Your task to perform on an android device: turn notification dots on Image 0: 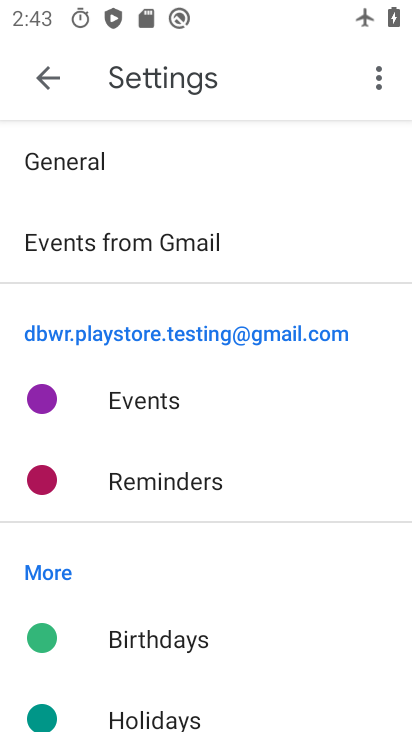
Step 0: press home button
Your task to perform on an android device: turn notification dots on Image 1: 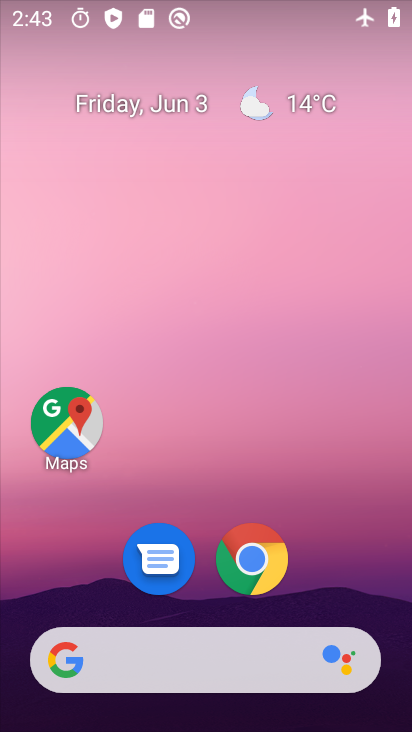
Step 1: drag from (225, 610) to (197, 71)
Your task to perform on an android device: turn notification dots on Image 2: 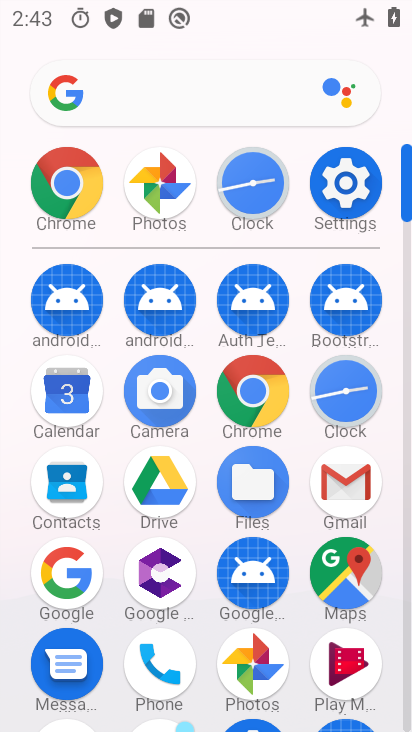
Step 2: click (70, 176)
Your task to perform on an android device: turn notification dots on Image 3: 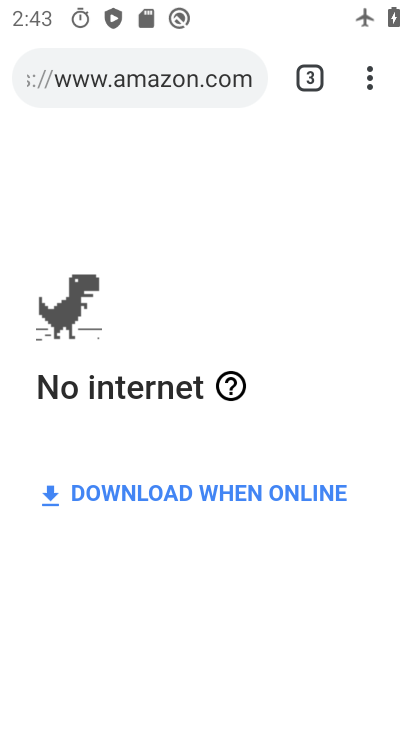
Step 3: press home button
Your task to perform on an android device: turn notification dots on Image 4: 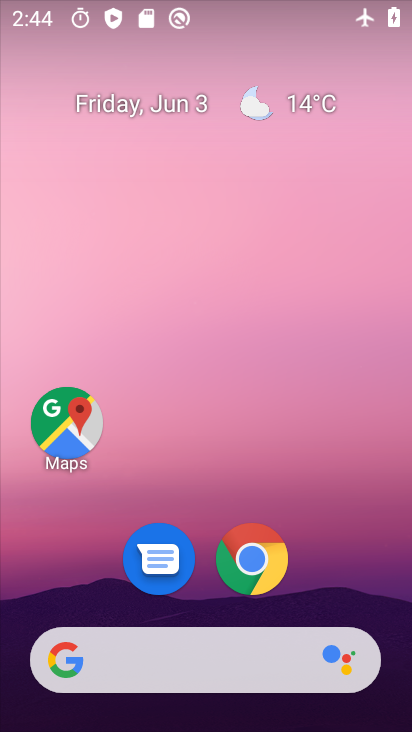
Step 4: drag from (213, 605) to (192, 0)
Your task to perform on an android device: turn notification dots on Image 5: 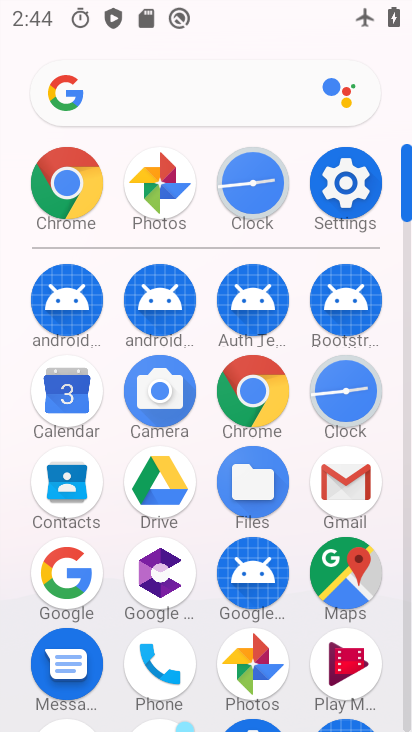
Step 5: click (336, 187)
Your task to perform on an android device: turn notification dots on Image 6: 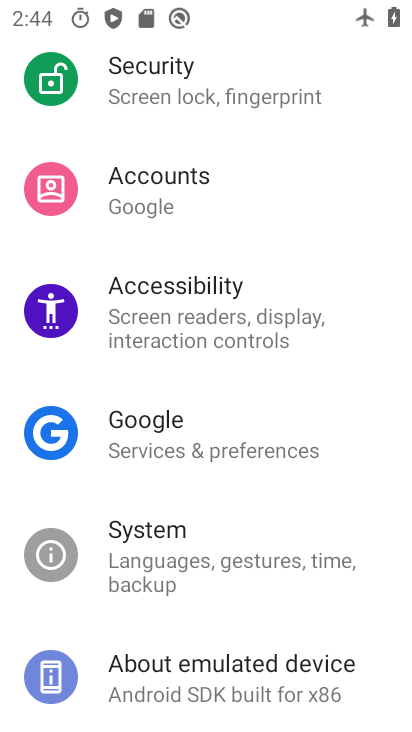
Step 6: drag from (165, 238) to (166, 682)
Your task to perform on an android device: turn notification dots on Image 7: 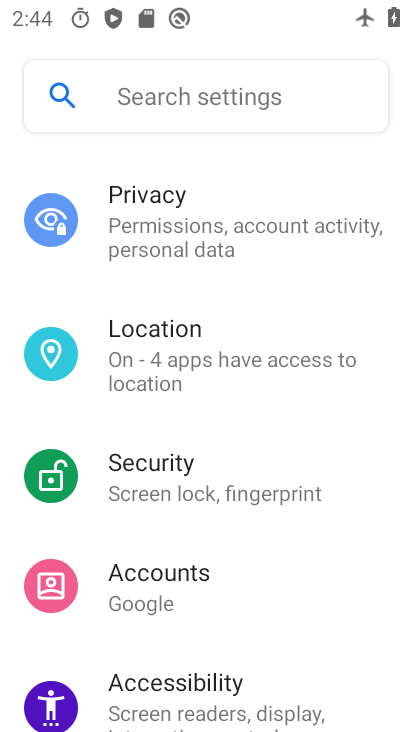
Step 7: drag from (193, 233) to (156, 593)
Your task to perform on an android device: turn notification dots on Image 8: 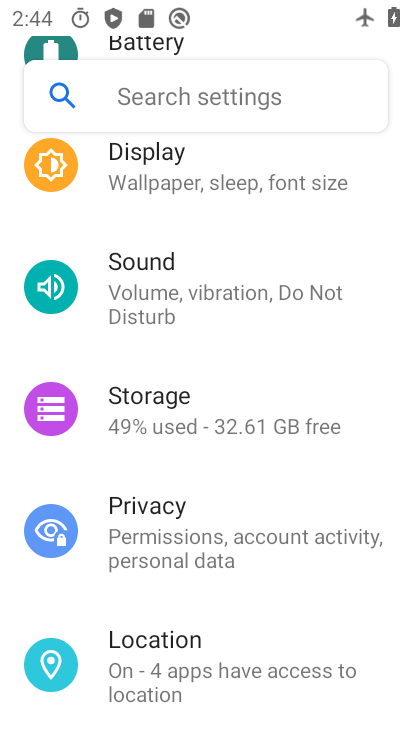
Step 8: drag from (192, 357) to (174, 729)
Your task to perform on an android device: turn notification dots on Image 9: 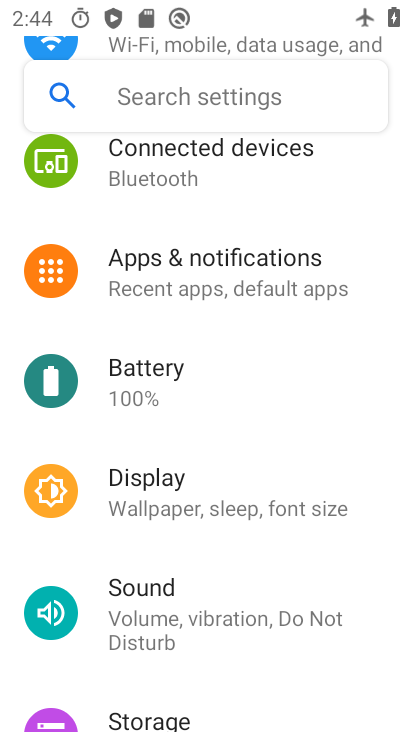
Step 9: click (238, 241)
Your task to perform on an android device: turn notification dots on Image 10: 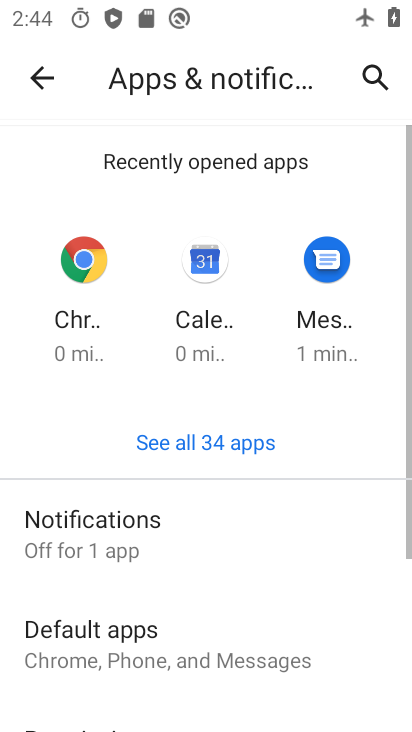
Step 10: click (148, 574)
Your task to perform on an android device: turn notification dots on Image 11: 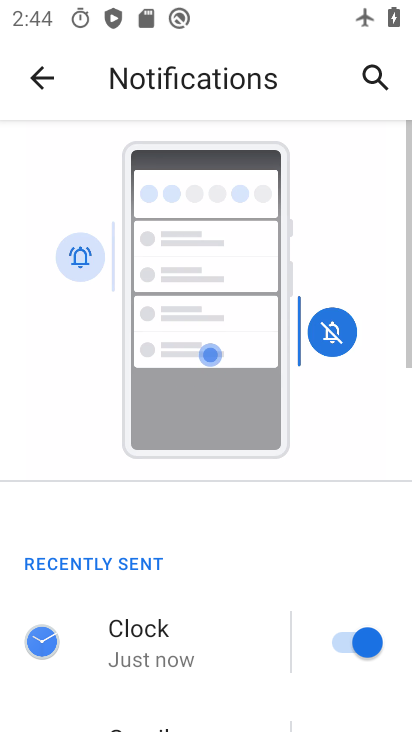
Step 11: drag from (148, 574) to (103, 63)
Your task to perform on an android device: turn notification dots on Image 12: 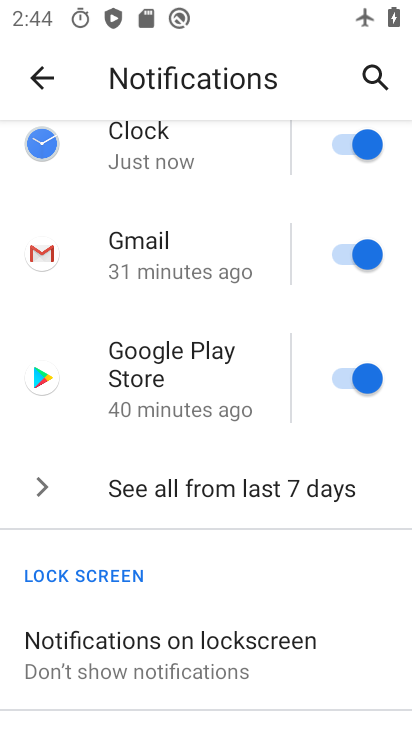
Step 12: drag from (207, 651) to (121, 138)
Your task to perform on an android device: turn notification dots on Image 13: 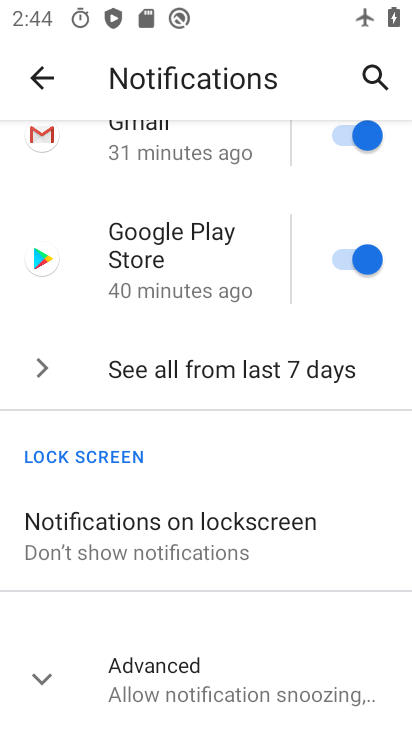
Step 13: click (165, 657)
Your task to perform on an android device: turn notification dots on Image 14: 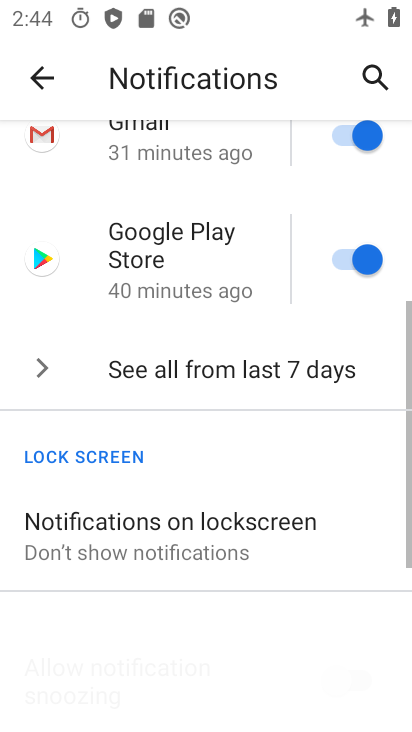
Step 14: task complete